Your task to perform on an android device: change the clock display to digital Image 0: 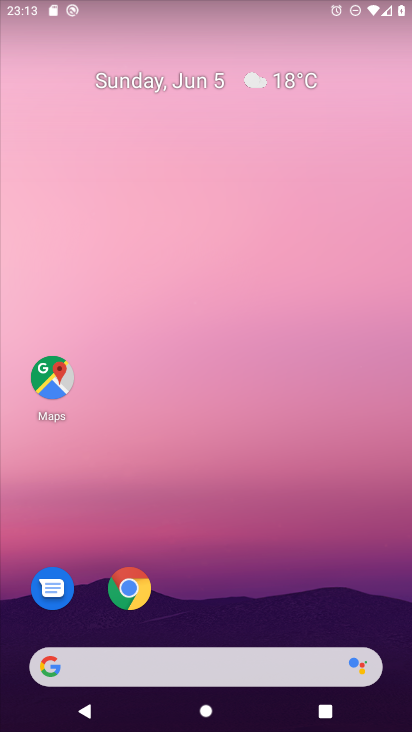
Step 0: drag from (364, 610) to (370, 223)
Your task to perform on an android device: change the clock display to digital Image 1: 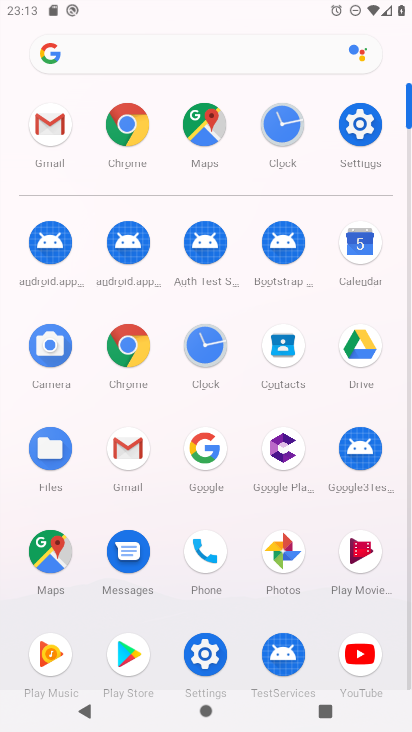
Step 1: click (198, 355)
Your task to perform on an android device: change the clock display to digital Image 2: 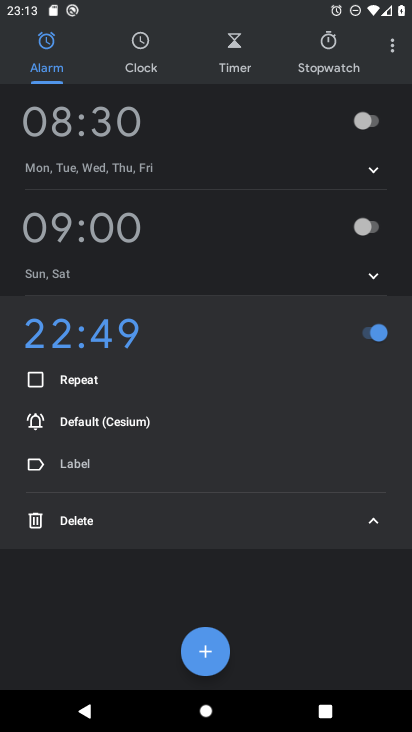
Step 2: click (396, 53)
Your task to perform on an android device: change the clock display to digital Image 3: 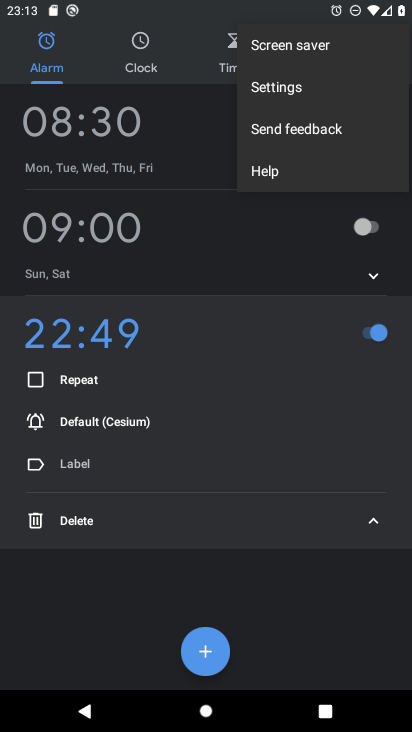
Step 3: click (310, 91)
Your task to perform on an android device: change the clock display to digital Image 4: 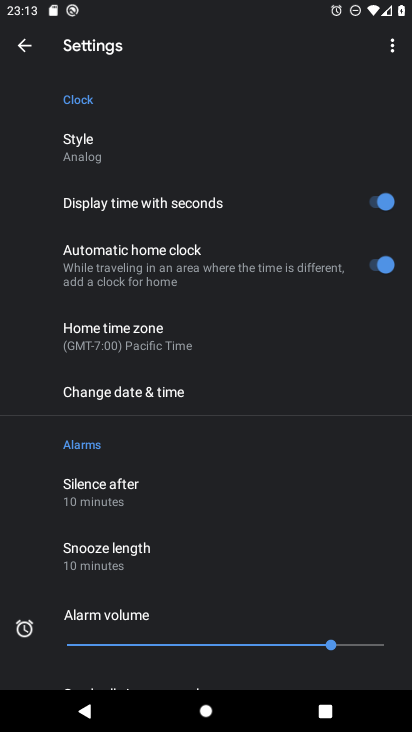
Step 4: click (103, 158)
Your task to perform on an android device: change the clock display to digital Image 5: 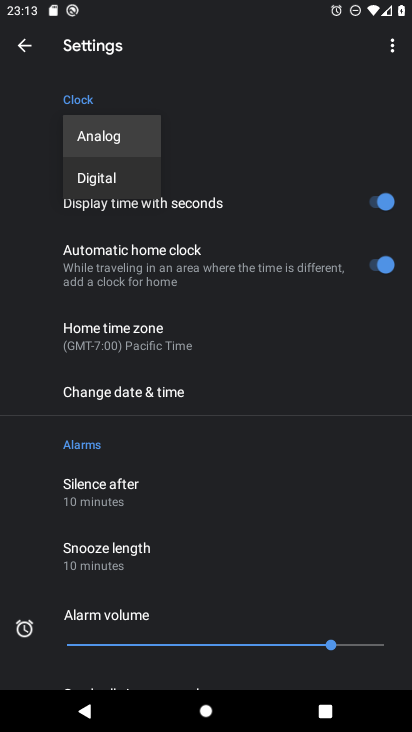
Step 5: click (87, 172)
Your task to perform on an android device: change the clock display to digital Image 6: 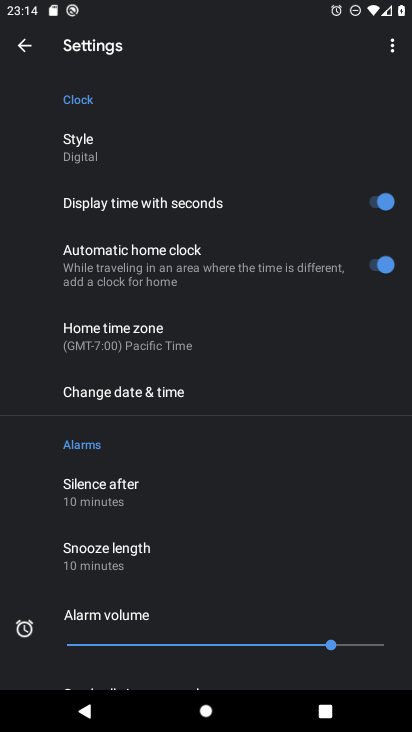
Step 6: task complete